Your task to perform on an android device: Go to CNN.com Image 0: 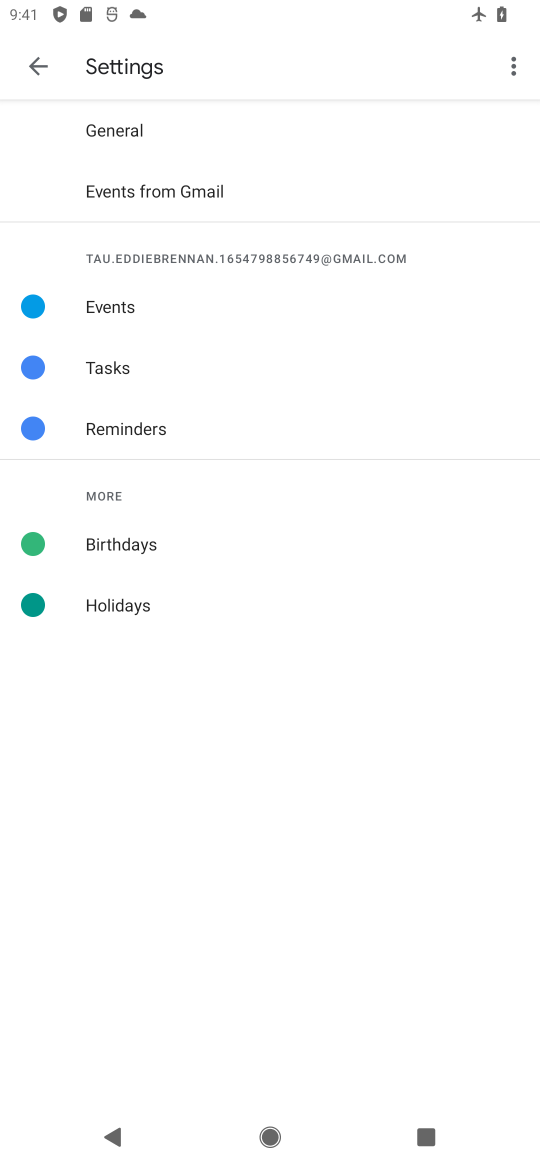
Step 0: press home button
Your task to perform on an android device: Go to CNN.com Image 1: 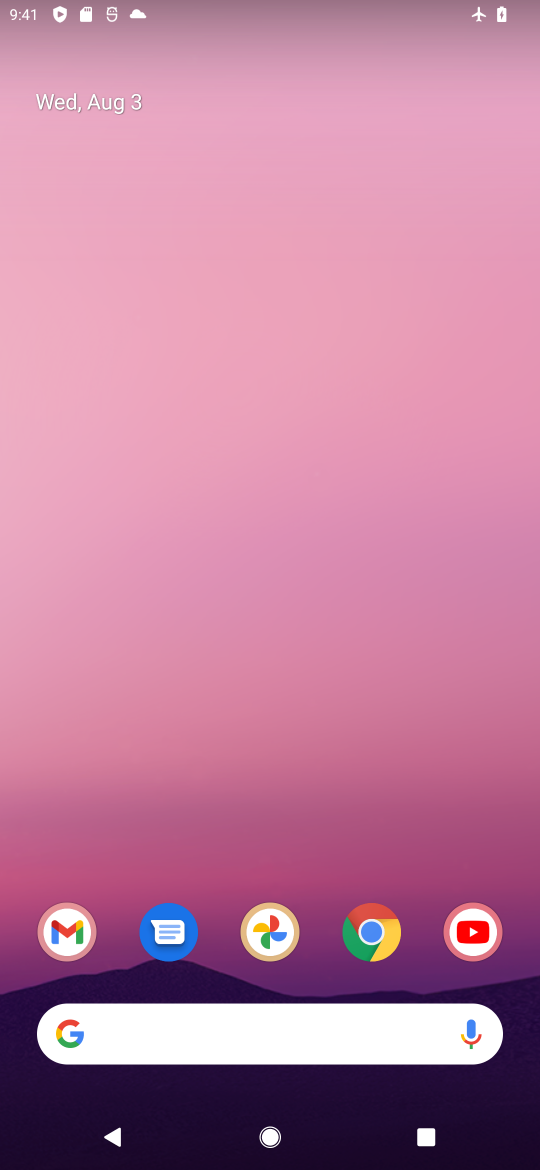
Step 1: click (386, 919)
Your task to perform on an android device: Go to CNN.com Image 2: 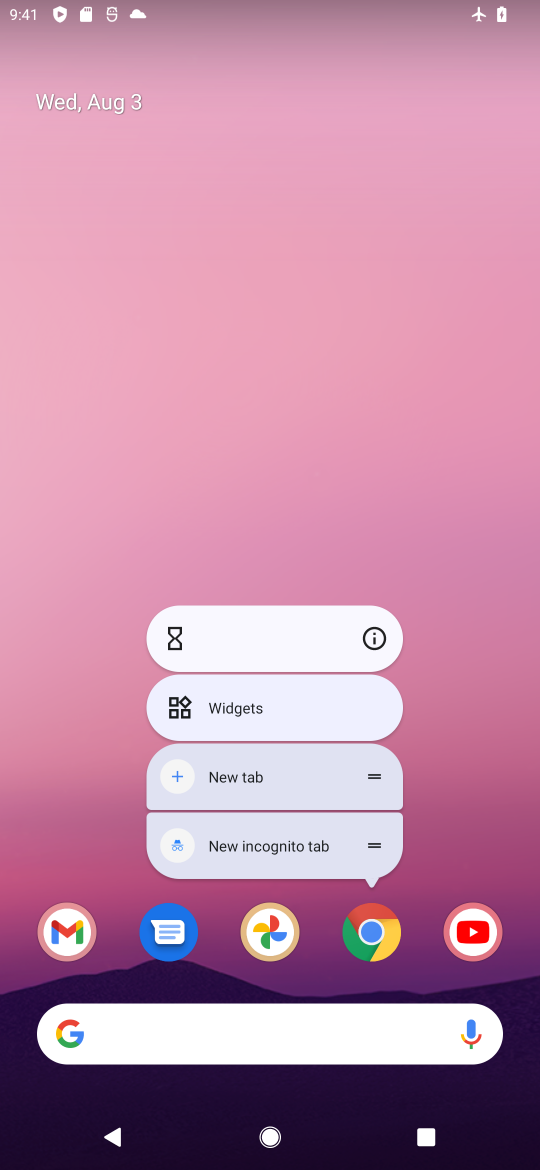
Step 2: click (376, 928)
Your task to perform on an android device: Go to CNN.com Image 3: 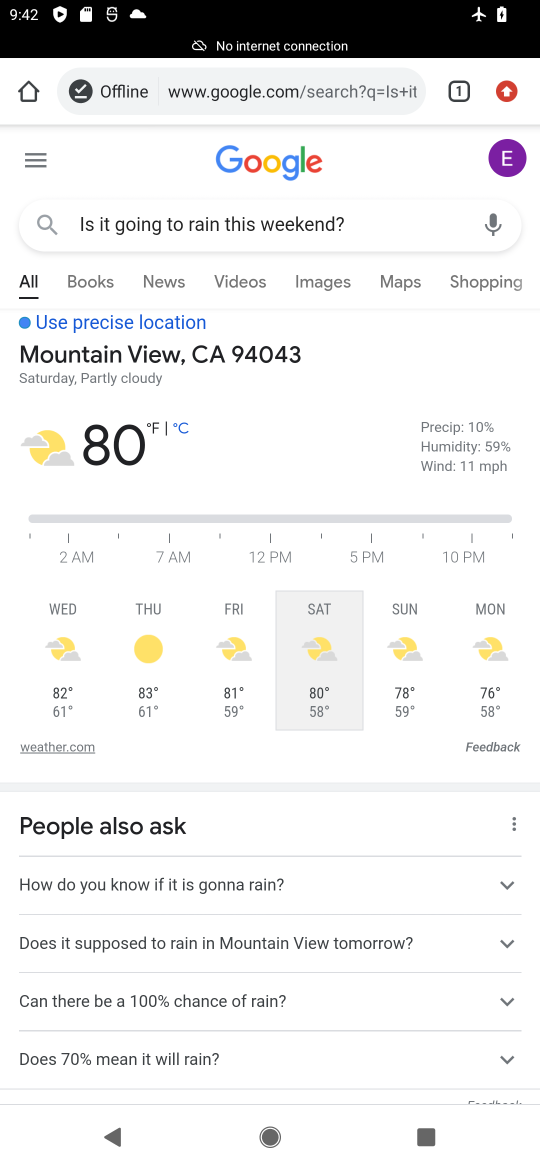
Step 3: click (284, 79)
Your task to perform on an android device: Go to CNN.com Image 4: 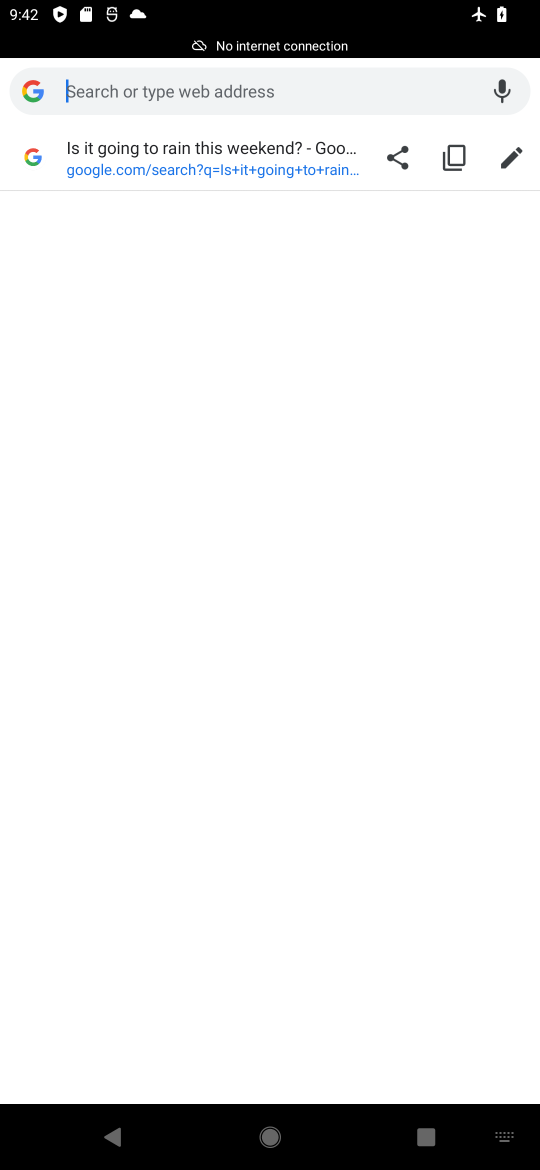
Step 4: type "cnn.com"
Your task to perform on an android device: Go to CNN.com Image 5: 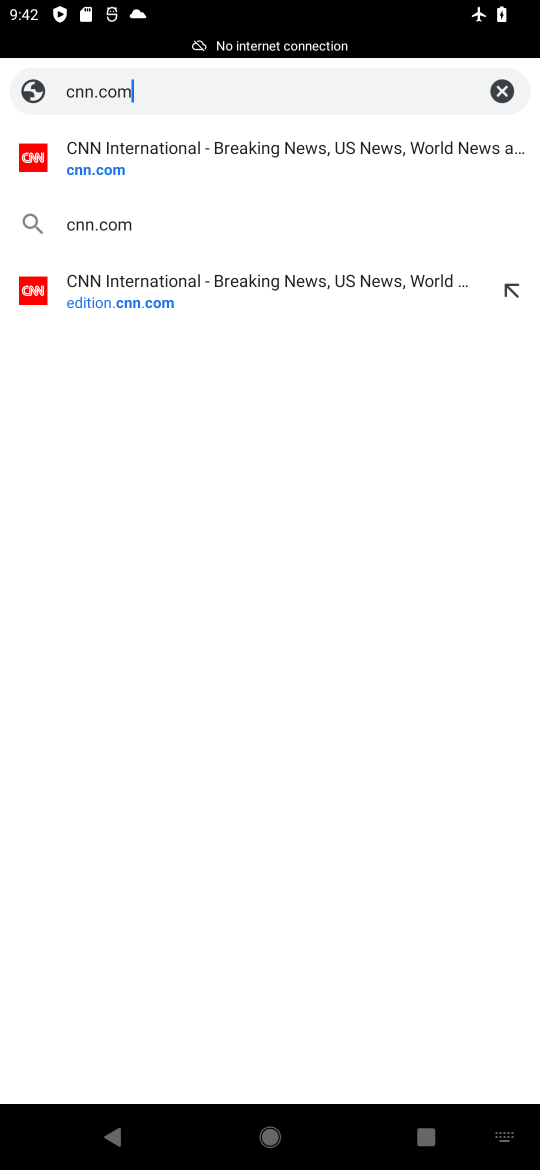
Step 5: click (176, 143)
Your task to perform on an android device: Go to CNN.com Image 6: 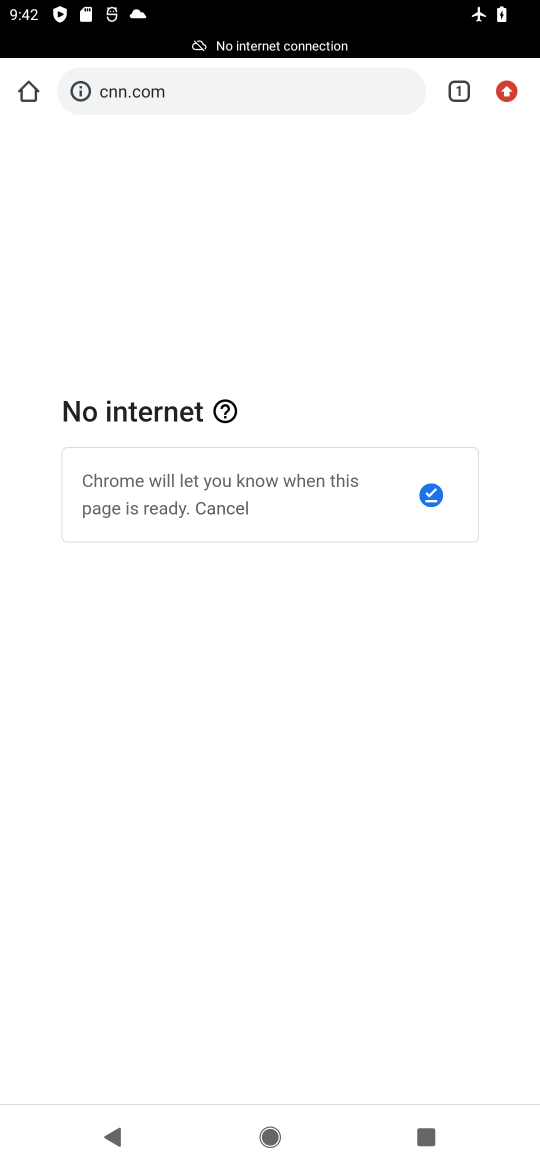
Step 6: task complete